Your task to perform on an android device: turn on sleep mode Image 0: 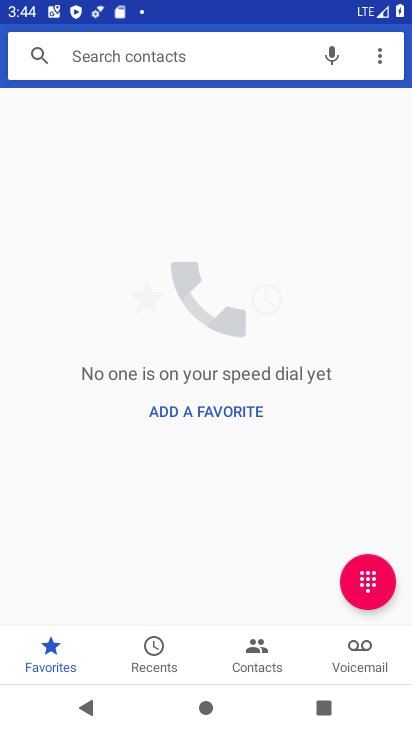
Step 0: press home button
Your task to perform on an android device: turn on sleep mode Image 1: 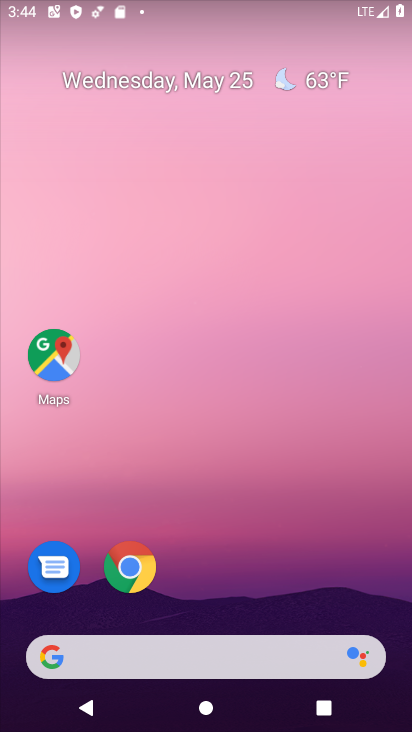
Step 1: drag from (259, 580) to (280, 40)
Your task to perform on an android device: turn on sleep mode Image 2: 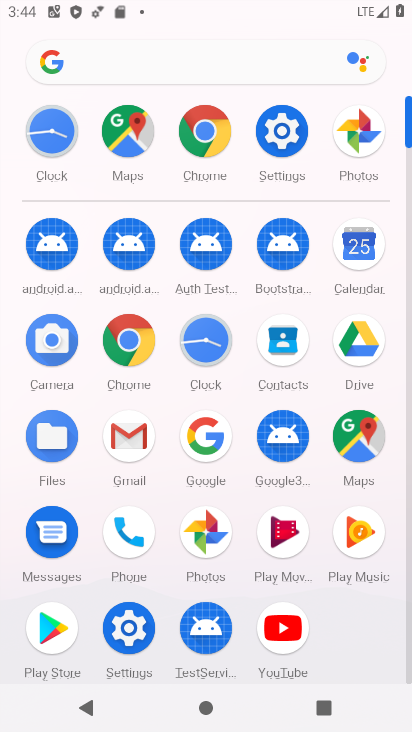
Step 2: click (129, 629)
Your task to perform on an android device: turn on sleep mode Image 3: 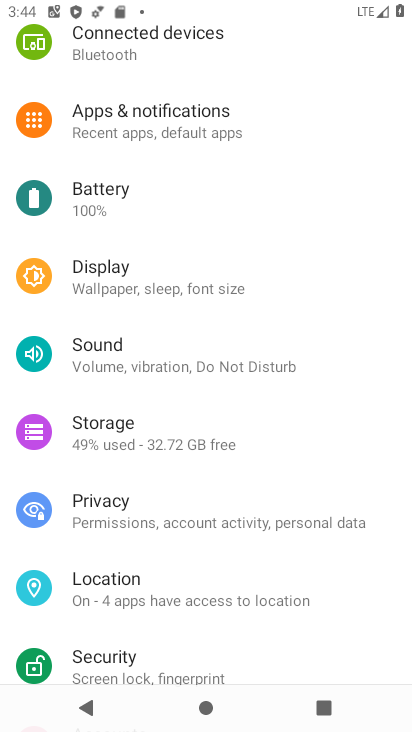
Step 3: click (139, 285)
Your task to perform on an android device: turn on sleep mode Image 4: 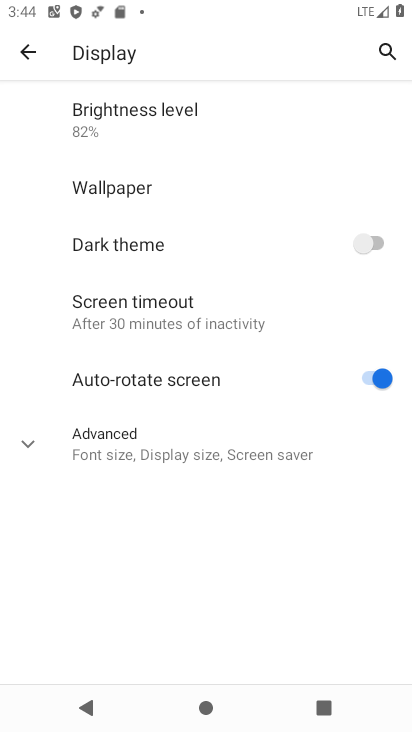
Step 4: task complete